Your task to perform on an android device: What's the news this weekend? Image 0: 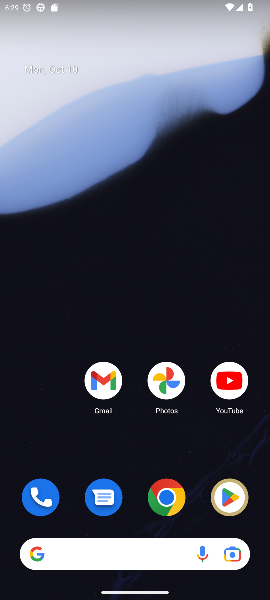
Step 0: drag from (61, 489) to (78, 155)
Your task to perform on an android device: What's the news this weekend? Image 1: 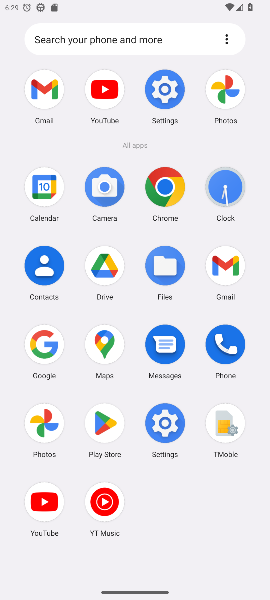
Step 1: click (49, 332)
Your task to perform on an android device: What's the news this weekend? Image 2: 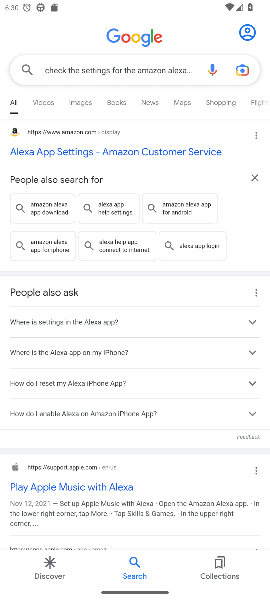
Step 2: click (169, 68)
Your task to perform on an android device: What's the news this weekend? Image 3: 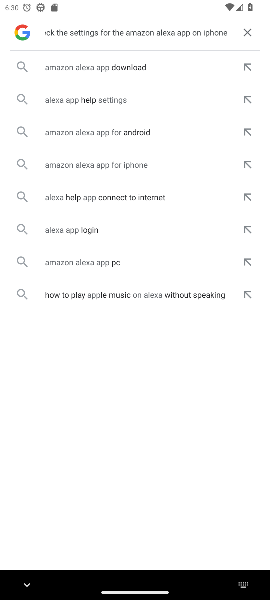
Step 3: click (251, 32)
Your task to perform on an android device: What's the news this weekend? Image 4: 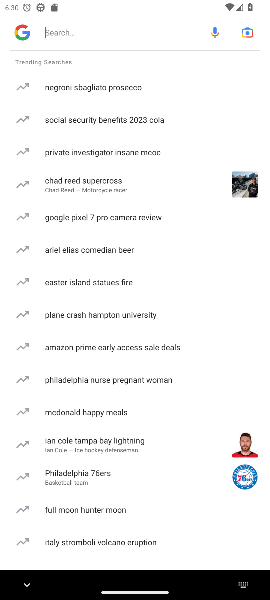
Step 4: click (76, 26)
Your task to perform on an android device: What's the news this weekend? Image 5: 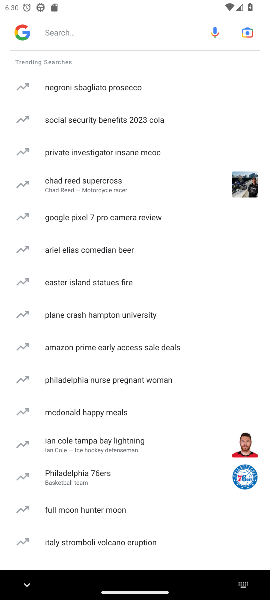
Step 5: type "What's the news this weekend? "
Your task to perform on an android device: What's the news this weekend? Image 6: 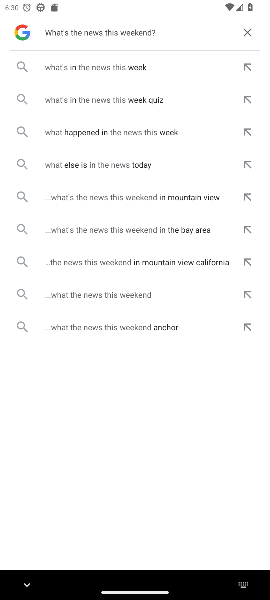
Step 6: click (123, 71)
Your task to perform on an android device: What's the news this weekend? Image 7: 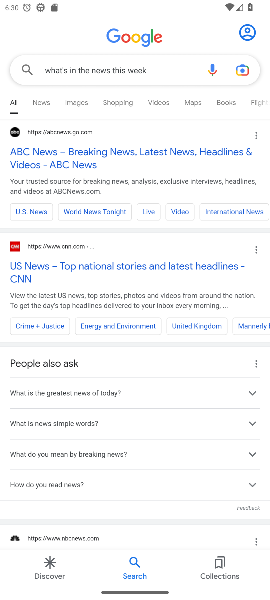
Step 7: click (71, 153)
Your task to perform on an android device: What's the news this weekend? Image 8: 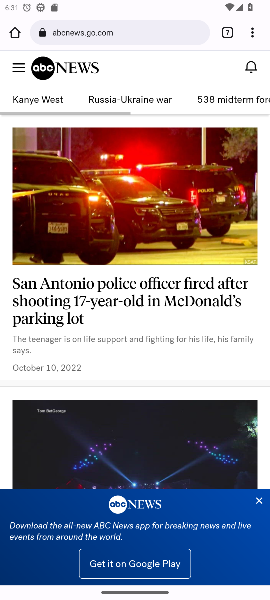
Step 8: task complete